Your task to perform on an android device: Open settings on Google Maps Image 0: 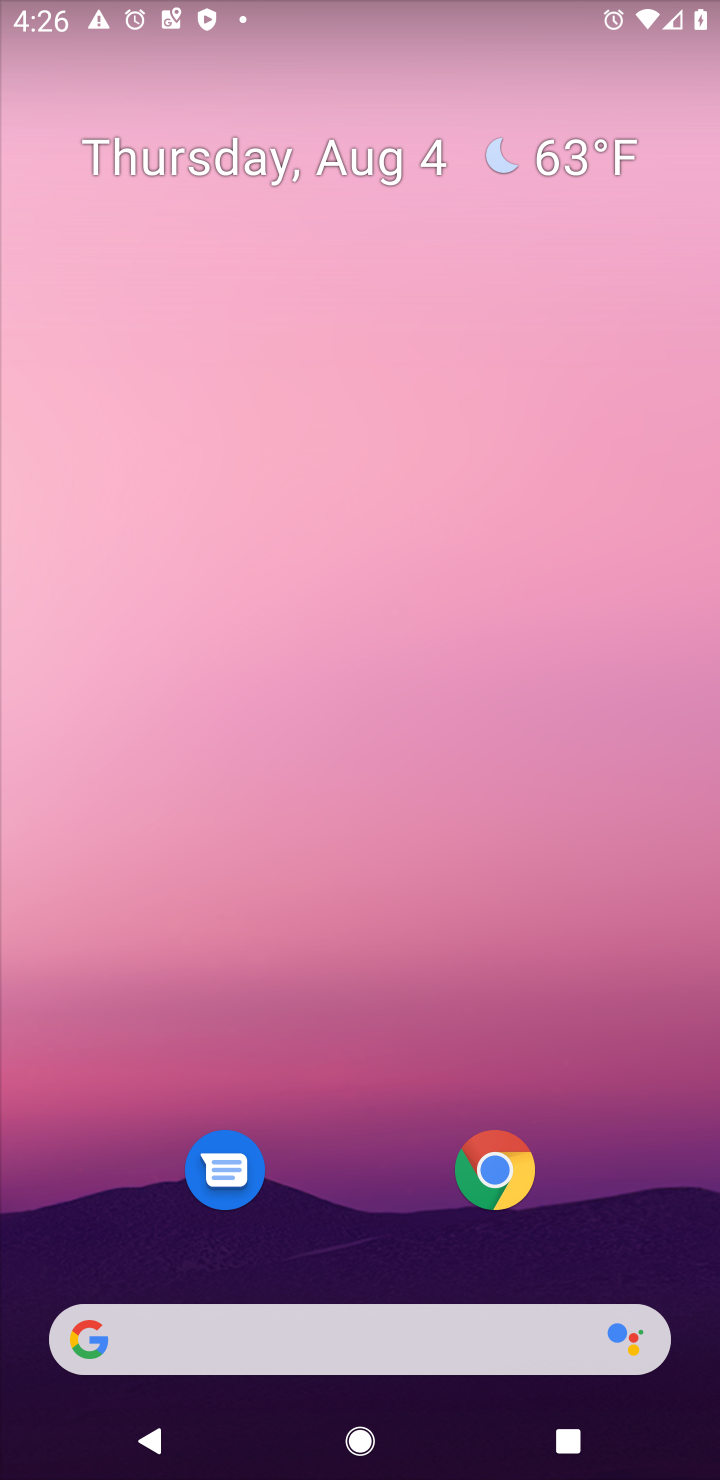
Step 0: drag from (643, 1206) to (543, 405)
Your task to perform on an android device: Open settings on Google Maps Image 1: 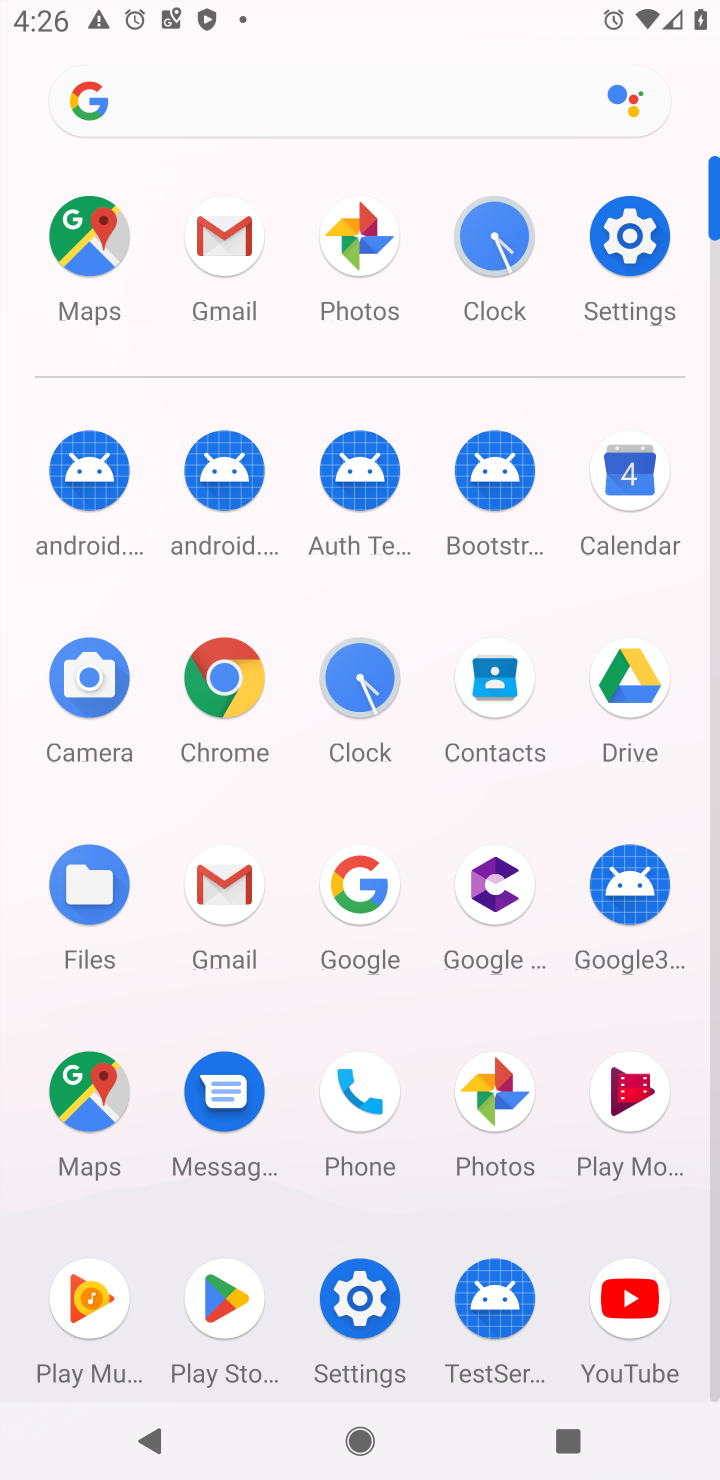
Step 1: click (86, 1097)
Your task to perform on an android device: Open settings on Google Maps Image 2: 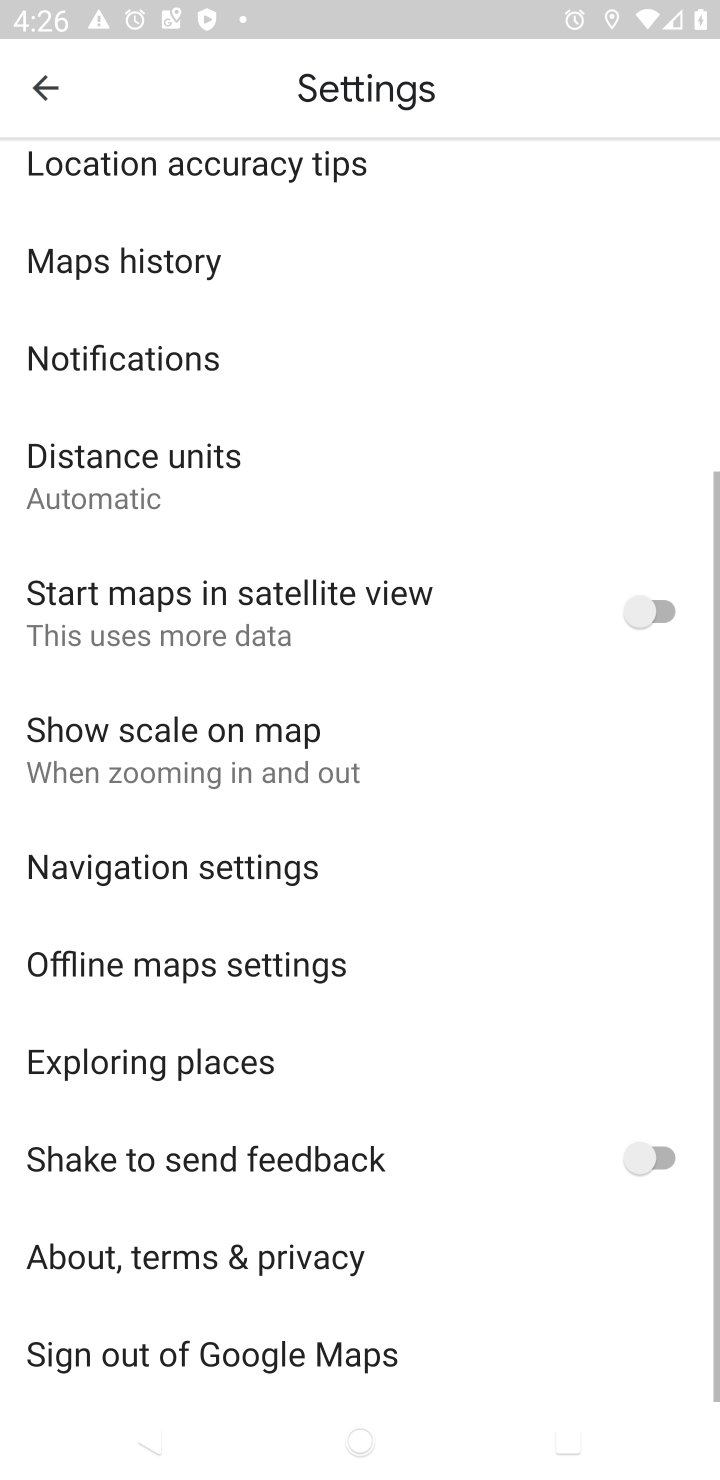
Step 2: task complete